Your task to perform on an android device: turn off priority inbox in the gmail app Image 0: 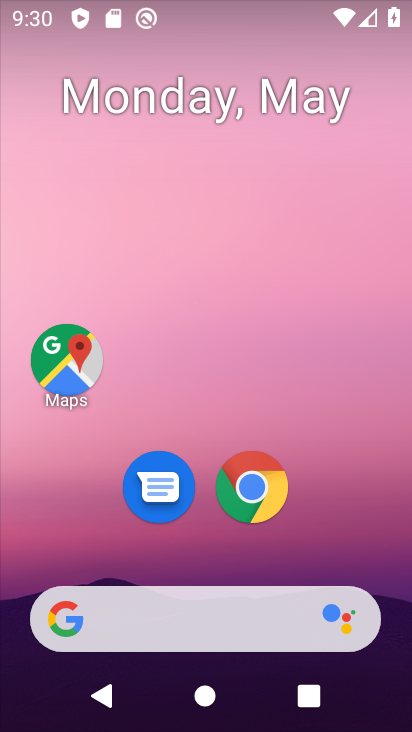
Step 0: drag from (301, 516) to (326, 0)
Your task to perform on an android device: turn off priority inbox in the gmail app Image 1: 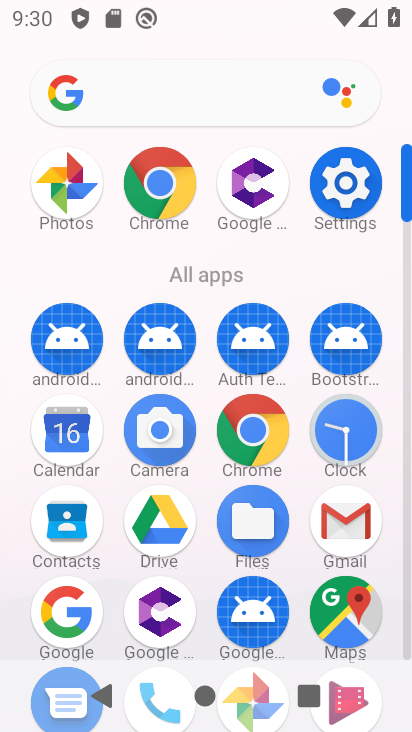
Step 1: click (350, 525)
Your task to perform on an android device: turn off priority inbox in the gmail app Image 2: 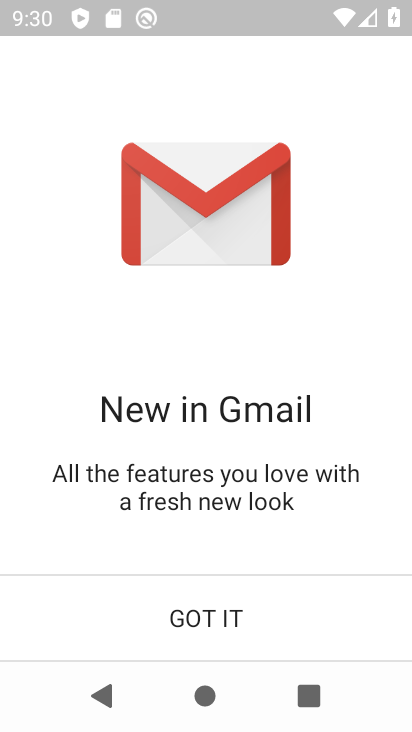
Step 2: click (254, 628)
Your task to perform on an android device: turn off priority inbox in the gmail app Image 3: 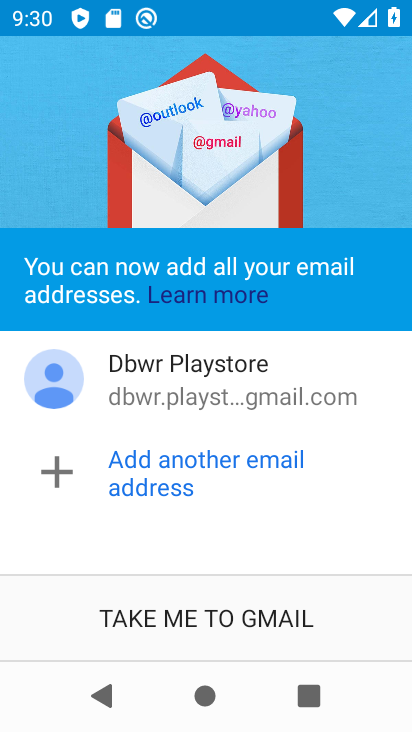
Step 3: click (256, 625)
Your task to perform on an android device: turn off priority inbox in the gmail app Image 4: 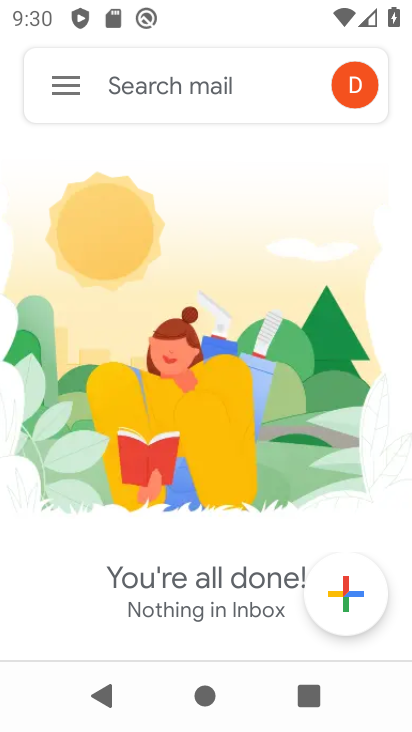
Step 4: click (62, 103)
Your task to perform on an android device: turn off priority inbox in the gmail app Image 5: 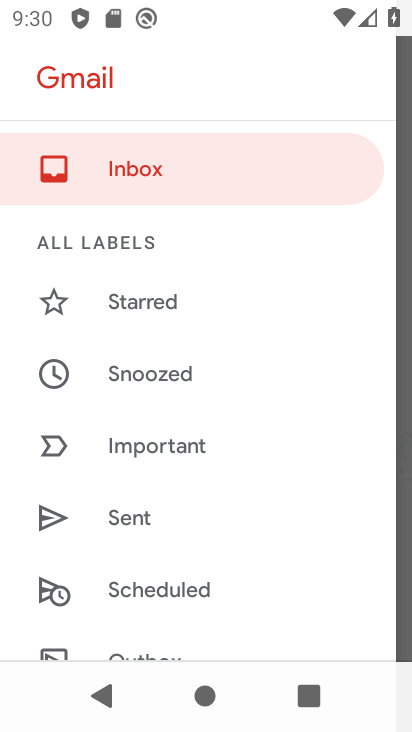
Step 5: drag from (147, 536) to (205, 239)
Your task to perform on an android device: turn off priority inbox in the gmail app Image 6: 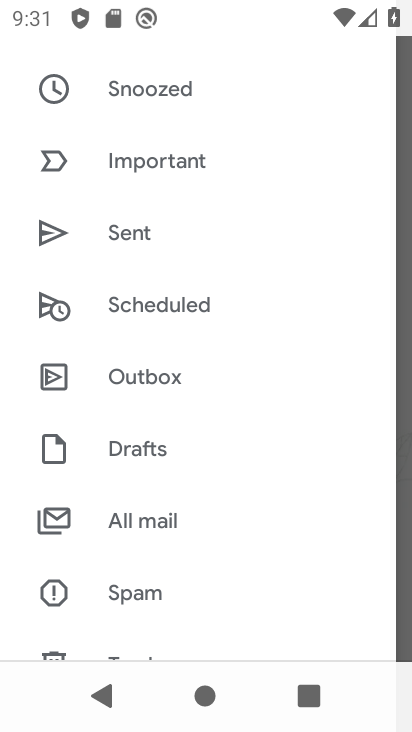
Step 6: drag from (183, 584) to (188, 359)
Your task to perform on an android device: turn off priority inbox in the gmail app Image 7: 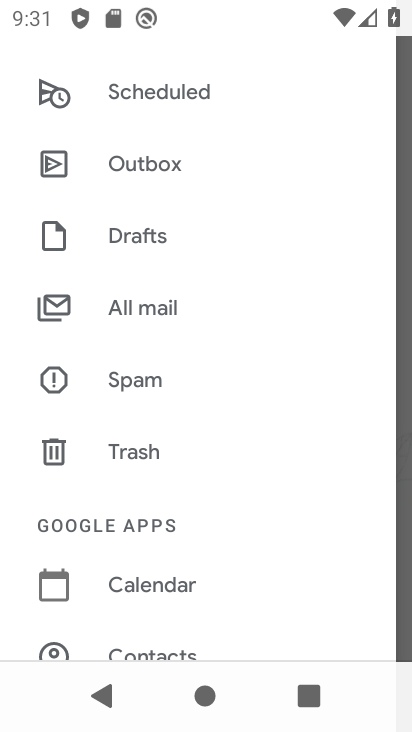
Step 7: drag from (202, 588) to (225, 368)
Your task to perform on an android device: turn off priority inbox in the gmail app Image 8: 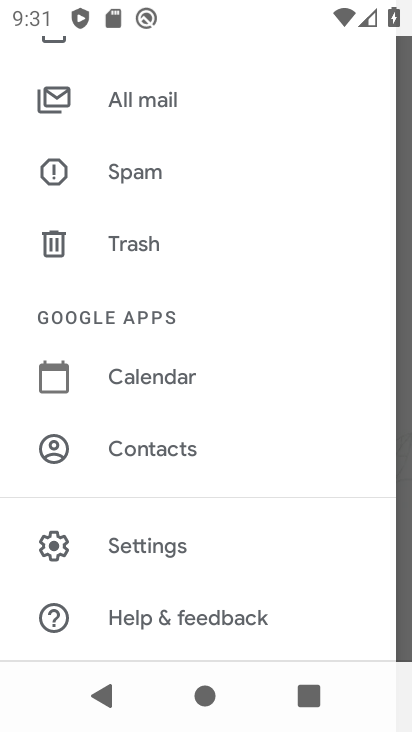
Step 8: click (203, 552)
Your task to perform on an android device: turn off priority inbox in the gmail app Image 9: 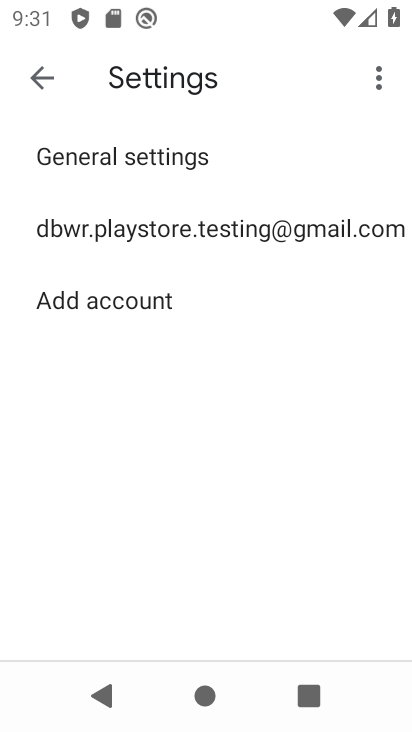
Step 9: click (133, 230)
Your task to perform on an android device: turn off priority inbox in the gmail app Image 10: 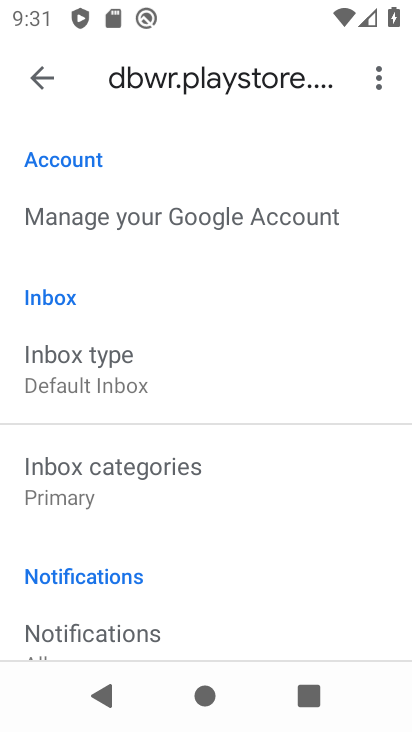
Step 10: drag from (154, 632) to (161, 413)
Your task to perform on an android device: turn off priority inbox in the gmail app Image 11: 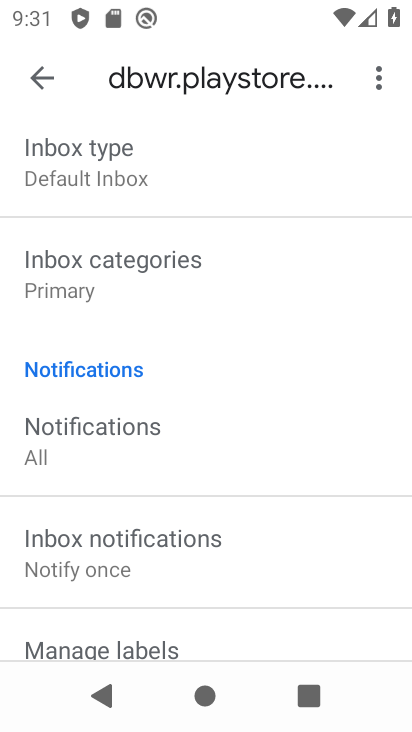
Step 11: click (160, 186)
Your task to perform on an android device: turn off priority inbox in the gmail app Image 12: 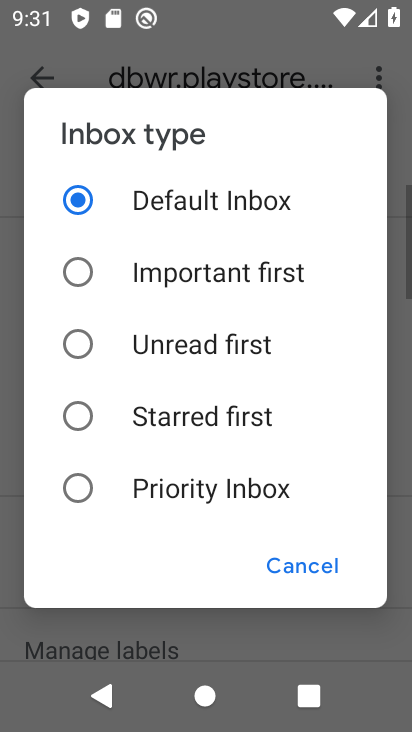
Step 12: click (171, 198)
Your task to perform on an android device: turn off priority inbox in the gmail app Image 13: 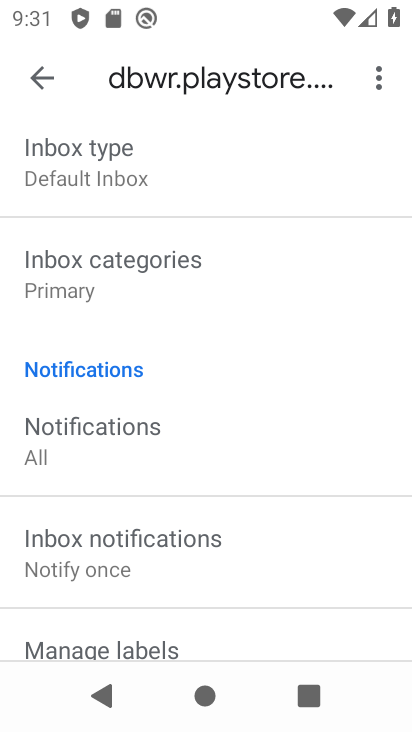
Step 13: task complete